Your task to perform on an android device: Go to Maps Image 0: 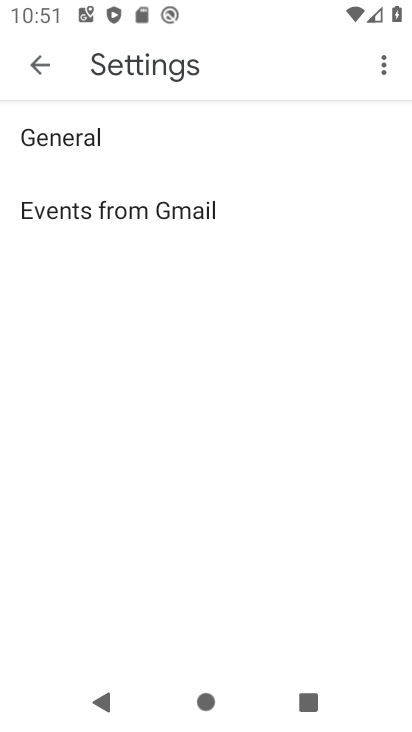
Step 0: press home button
Your task to perform on an android device: Go to Maps Image 1: 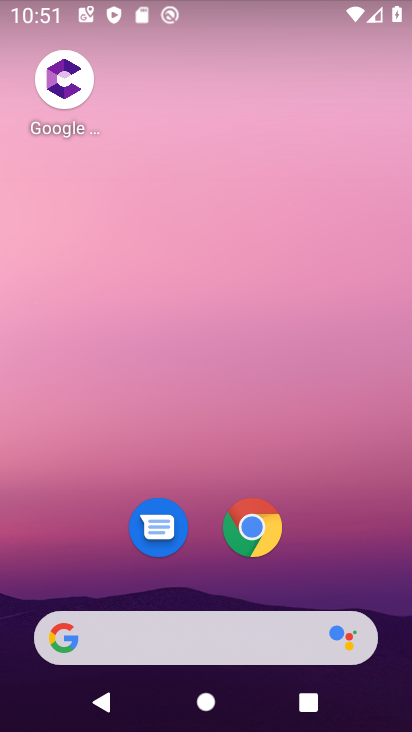
Step 1: drag from (205, 567) to (182, 0)
Your task to perform on an android device: Go to Maps Image 2: 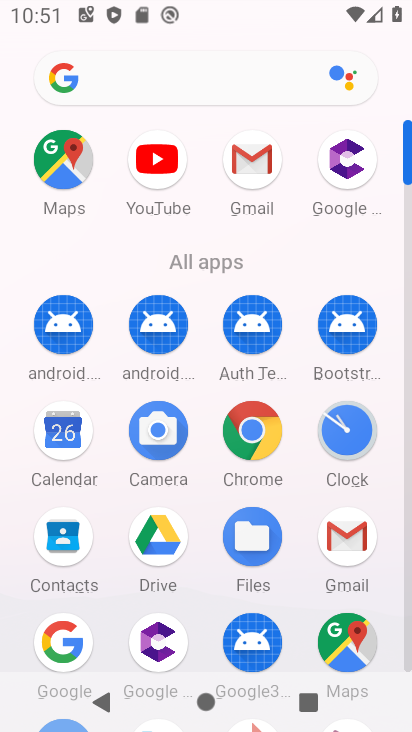
Step 2: click (343, 642)
Your task to perform on an android device: Go to Maps Image 3: 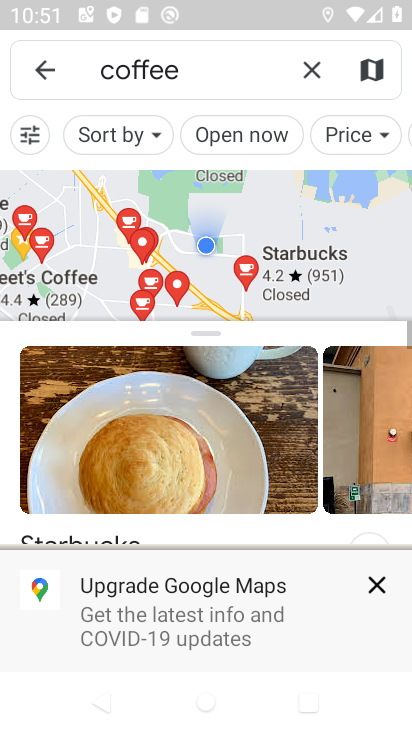
Step 3: click (34, 76)
Your task to perform on an android device: Go to Maps Image 4: 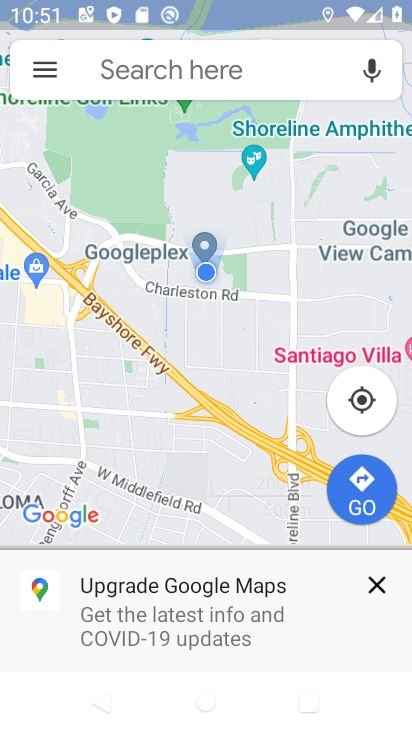
Step 4: task complete